Your task to perform on an android device: turn notification dots off Image 0: 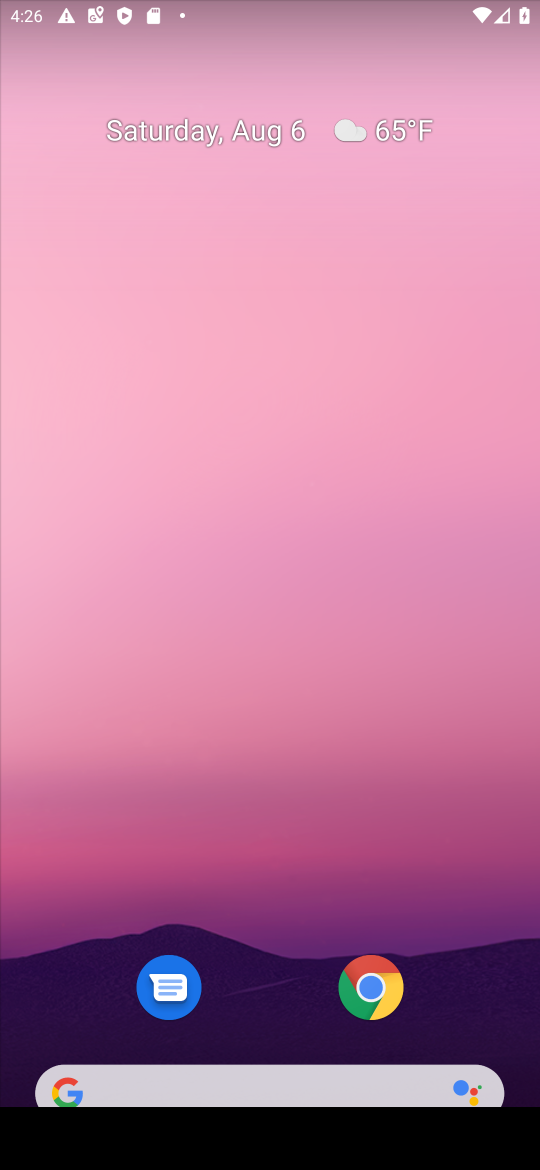
Step 0: drag from (288, 585) to (453, 0)
Your task to perform on an android device: turn notification dots off Image 1: 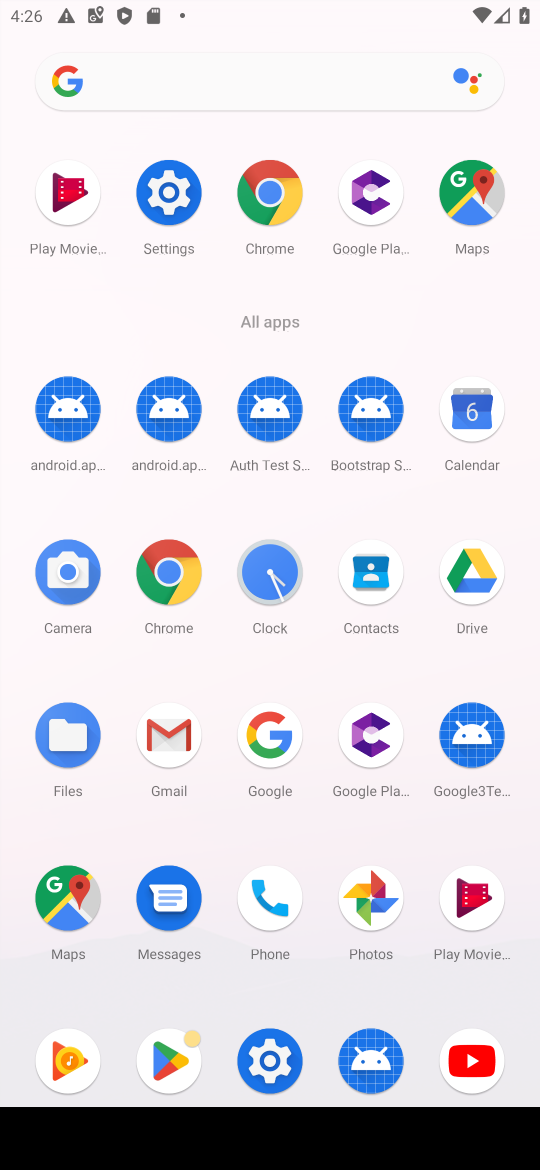
Step 1: click (164, 223)
Your task to perform on an android device: turn notification dots off Image 2: 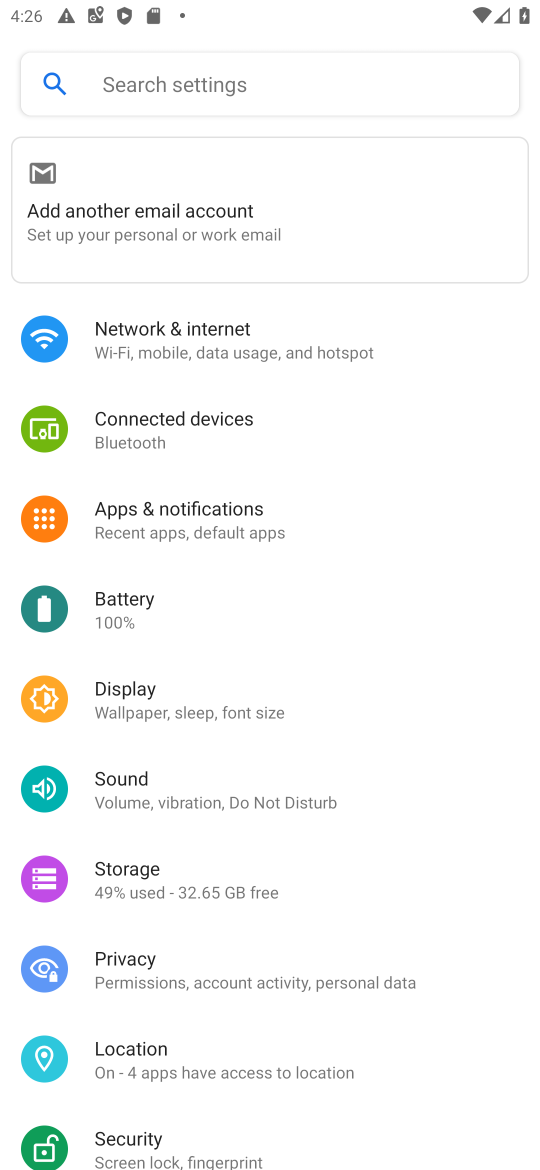
Step 2: click (198, 531)
Your task to perform on an android device: turn notification dots off Image 3: 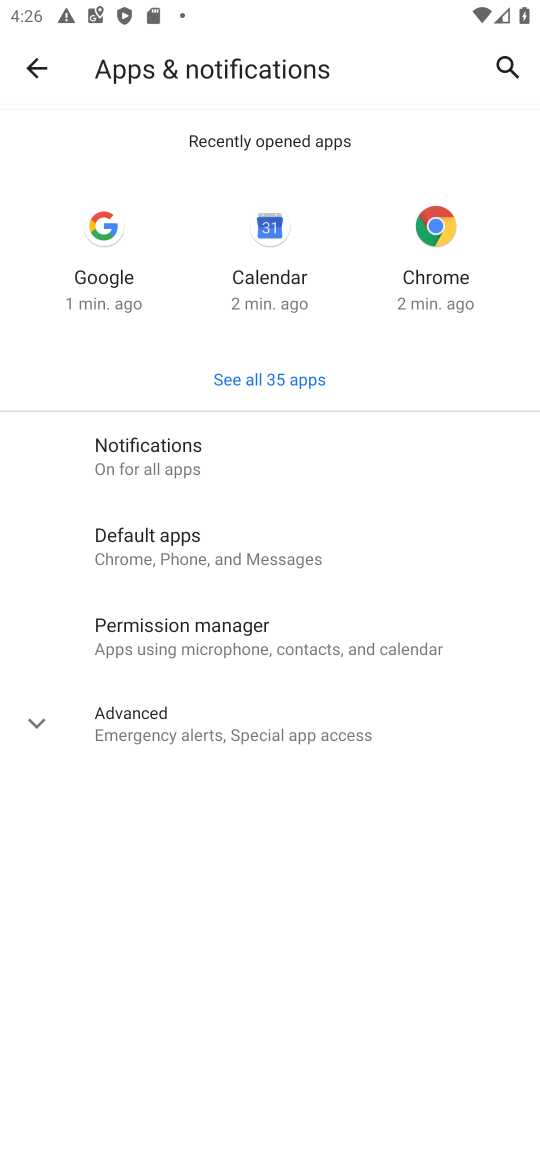
Step 3: click (202, 469)
Your task to perform on an android device: turn notification dots off Image 4: 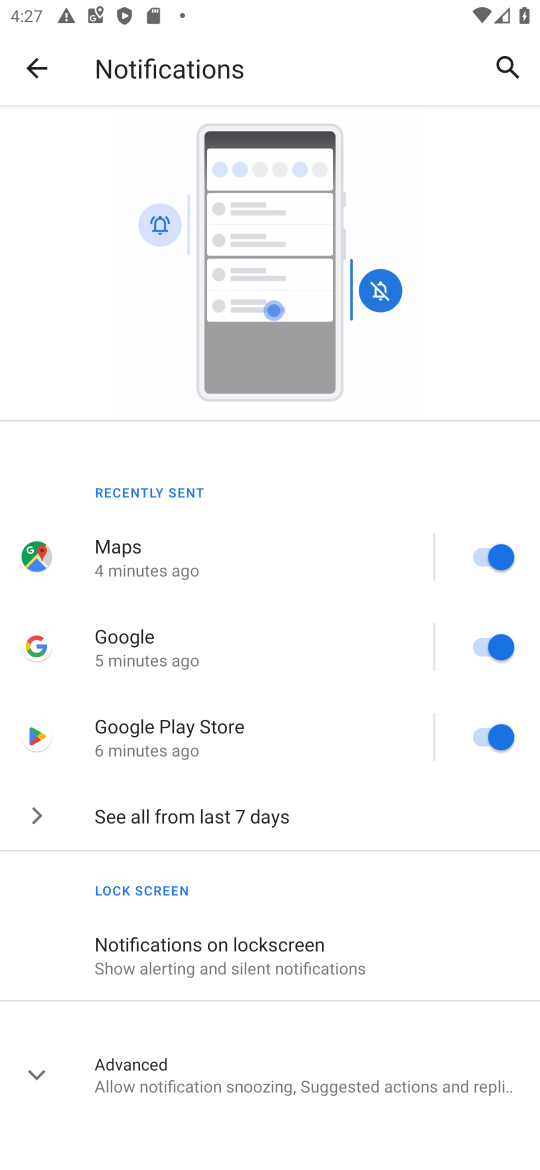
Step 4: click (163, 1078)
Your task to perform on an android device: turn notification dots off Image 5: 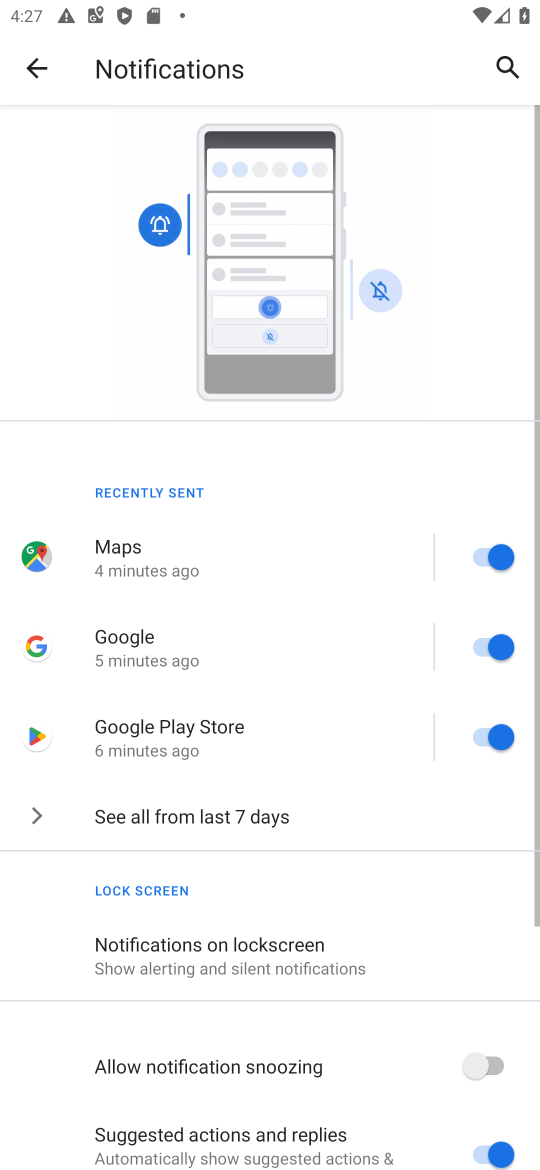
Step 5: drag from (262, 1022) to (313, 299)
Your task to perform on an android device: turn notification dots off Image 6: 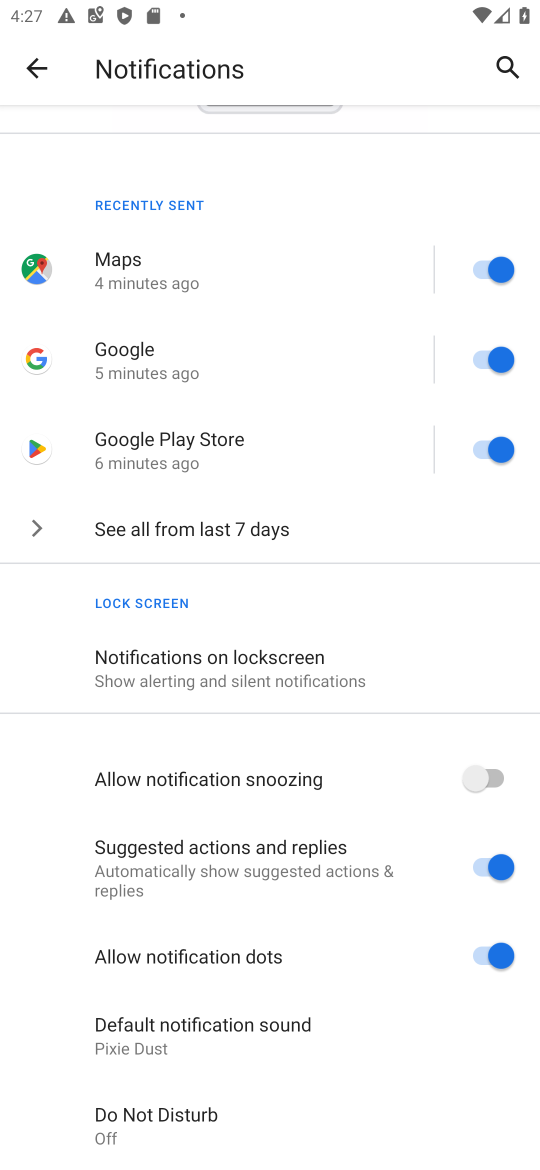
Step 6: click (461, 956)
Your task to perform on an android device: turn notification dots off Image 7: 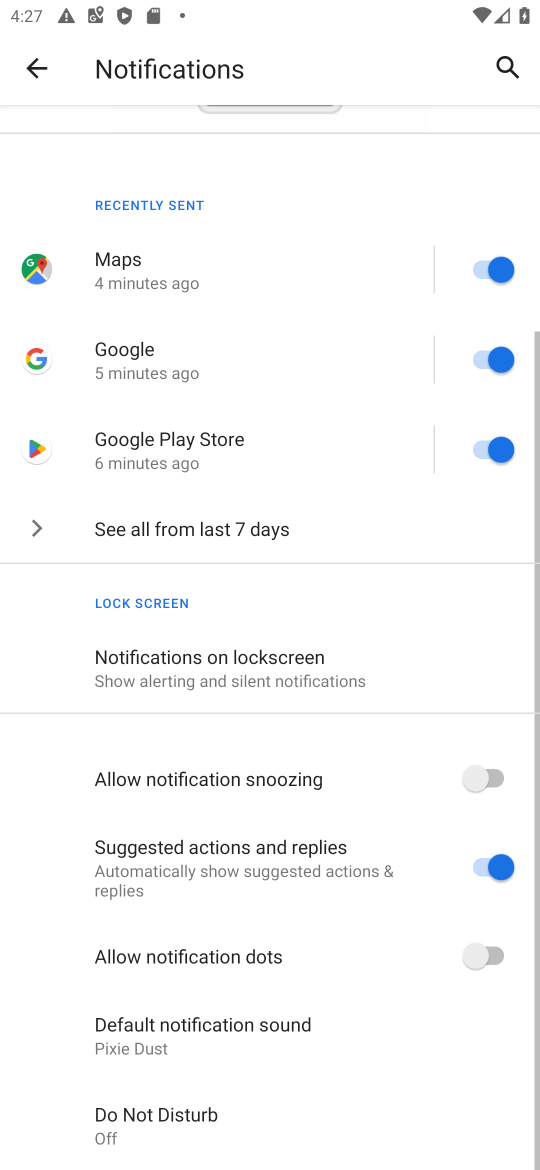
Step 7: task complete